Your task to perform on an android device: turn off location history Image 0: 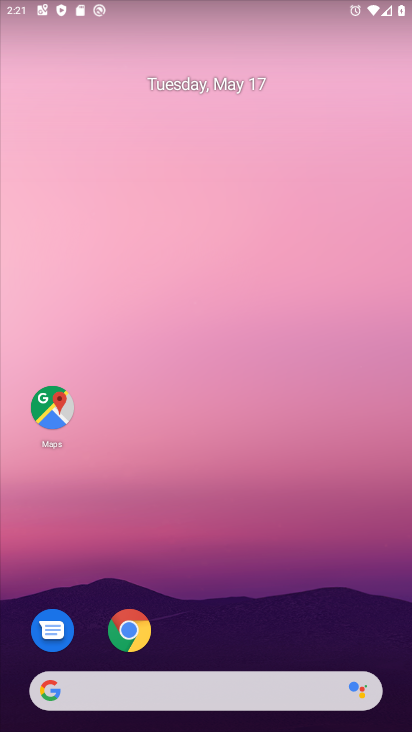
Step 0: drag from (373, 599) to (345, 174)
Your task to perform on an android device: turn off location history Image 1: 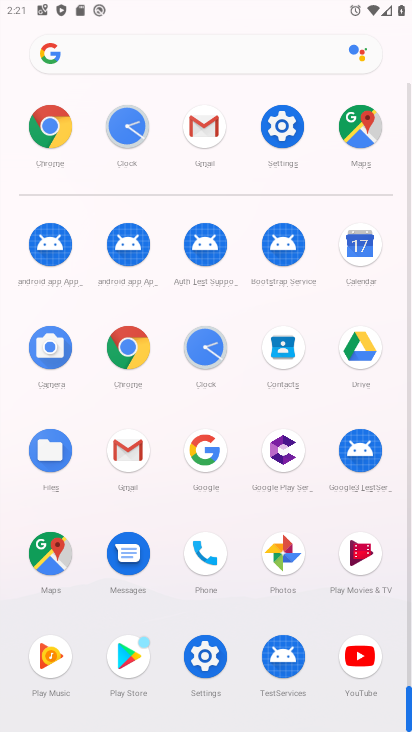
Step 1: click (207, 660)
Your task to perform on an android device: turn off location history Image 2: 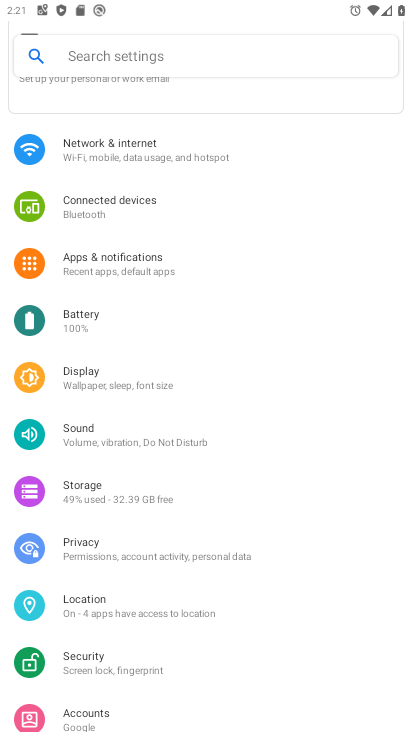
Step 2: click (156, 590)
Your task to perform on an android device: turn off location history Image 3: 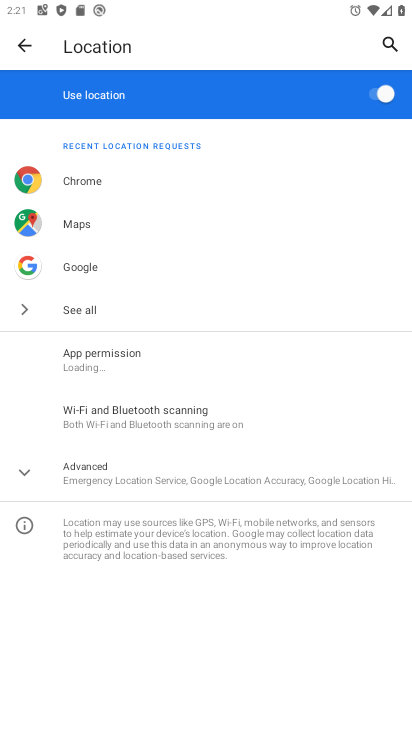
Step 3: click (166, 473)
Your task to perform on an android device: turn off location history Image 4: 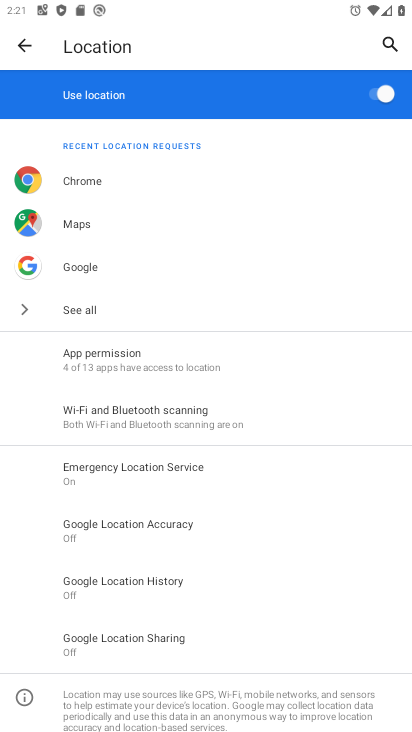
Step 4: click (160, 582)
Your task to perform on an android device: turn off location history Image 5: 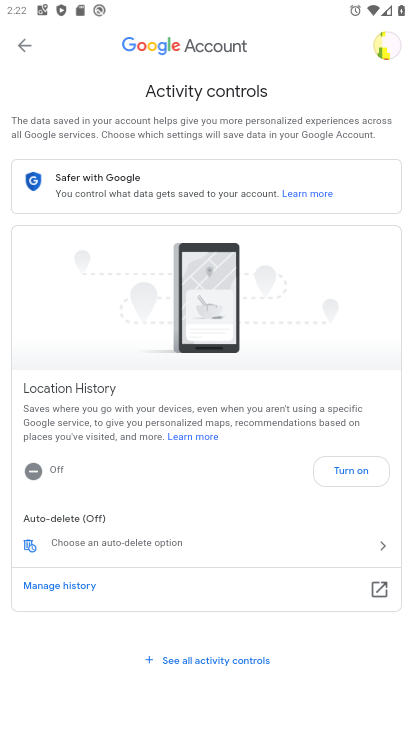
Step 5: task complete